Your task to perform on an android device: Open internet settings Image 0: 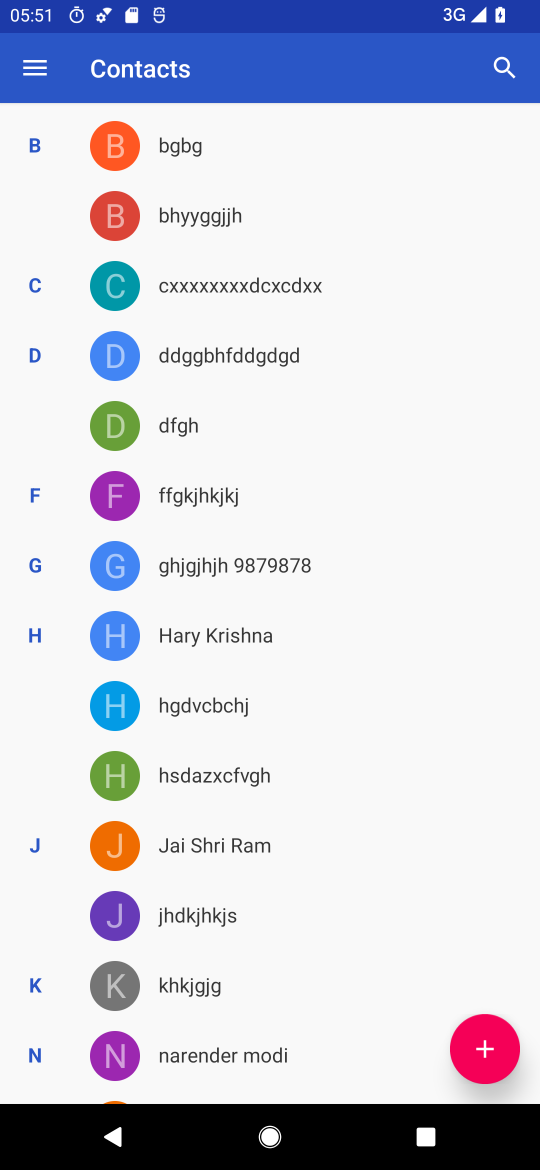
Step 0: press home button
Your task to perform on an android device: Open internet settings Image 1: 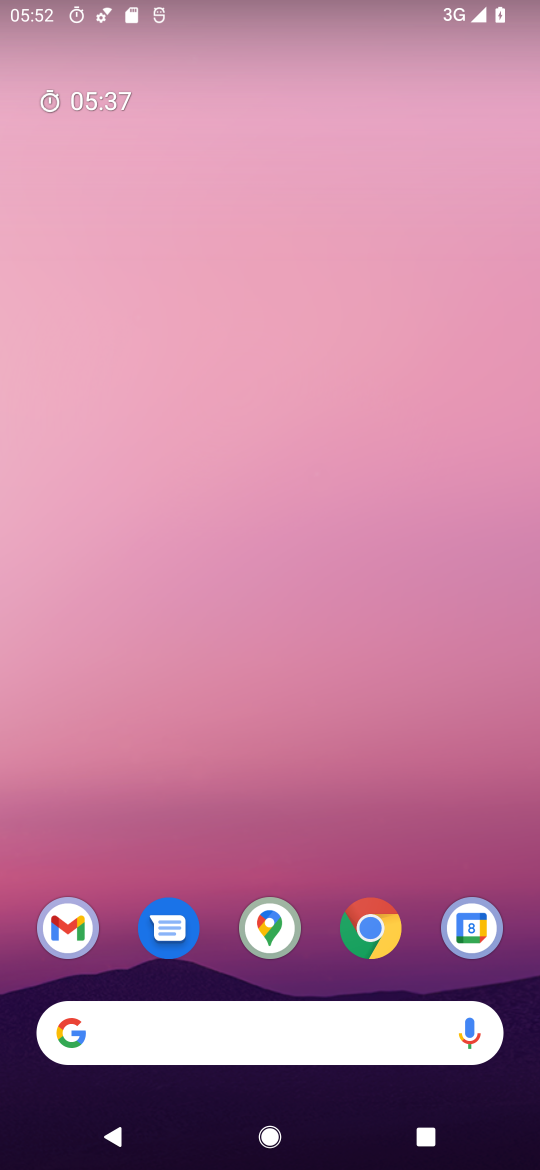
Step 1: drag from (237, 979) to (289, 408)
Your task to perform on an android device: Open internet settings Image 2: 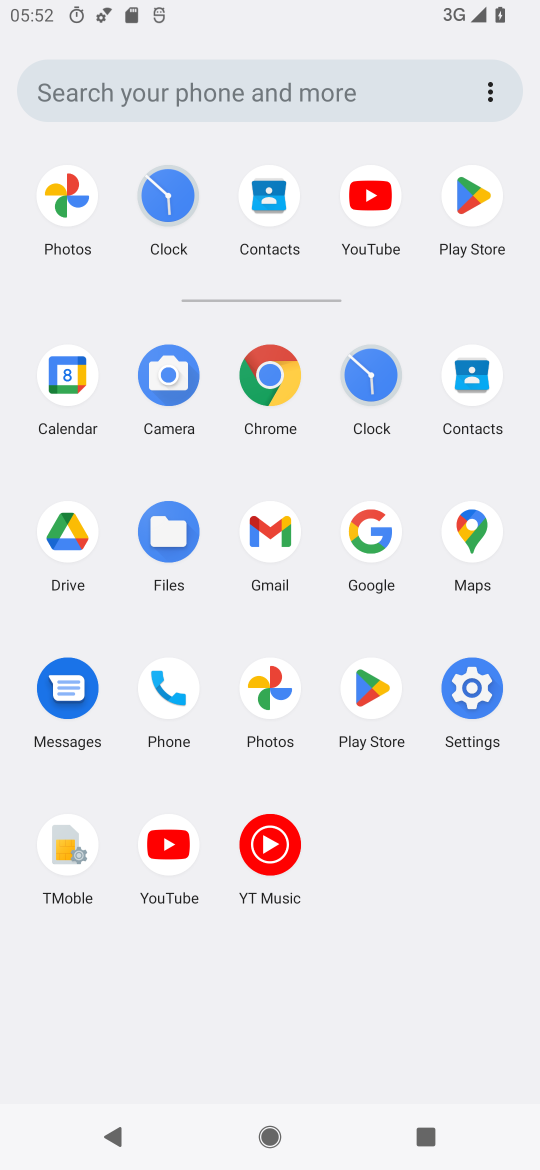
Step 2: click (472, 703)
Your task to perform on an android device: Open internet settings Image 3: 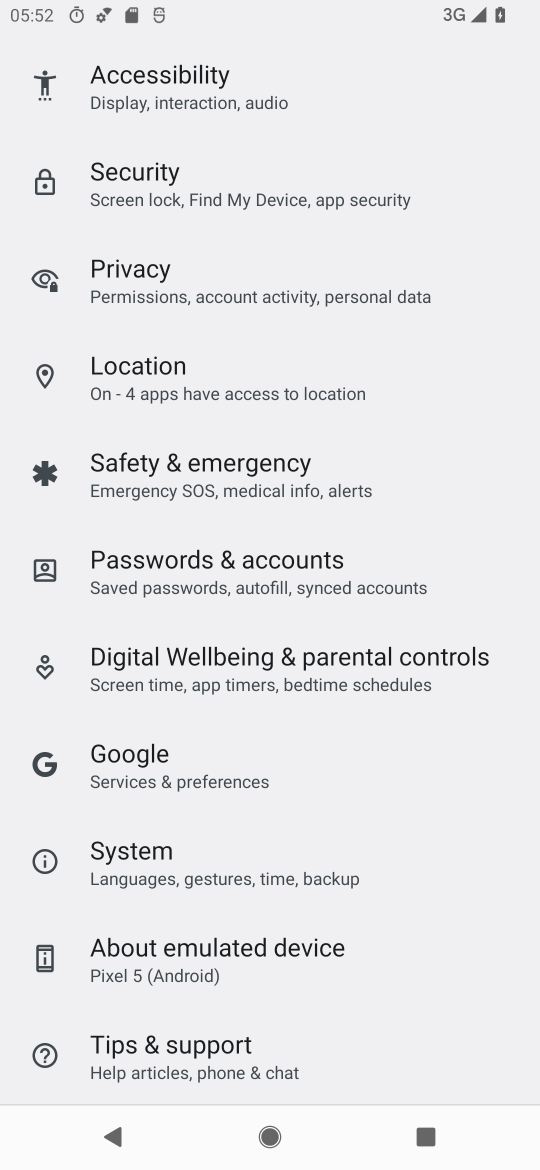
Step 3: drag from (247, 321) to (241, 1001)
Your task to perform on an android device: Open internet settings Image 4: 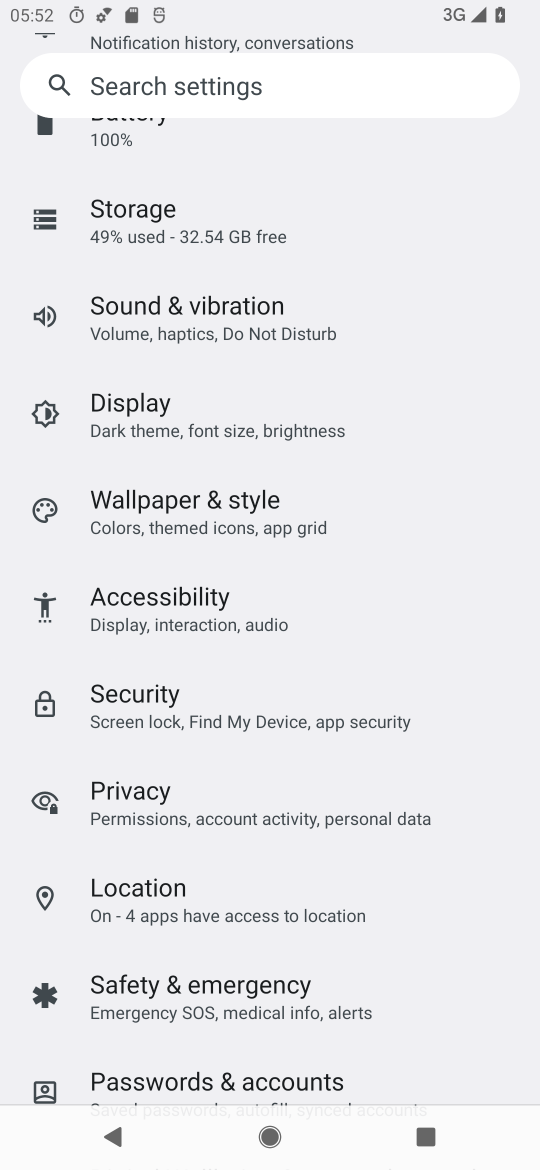
Step 4: drag from (244, 192) to (254, 811)
Your task to perform on an android device: Open internet settings Image 5: 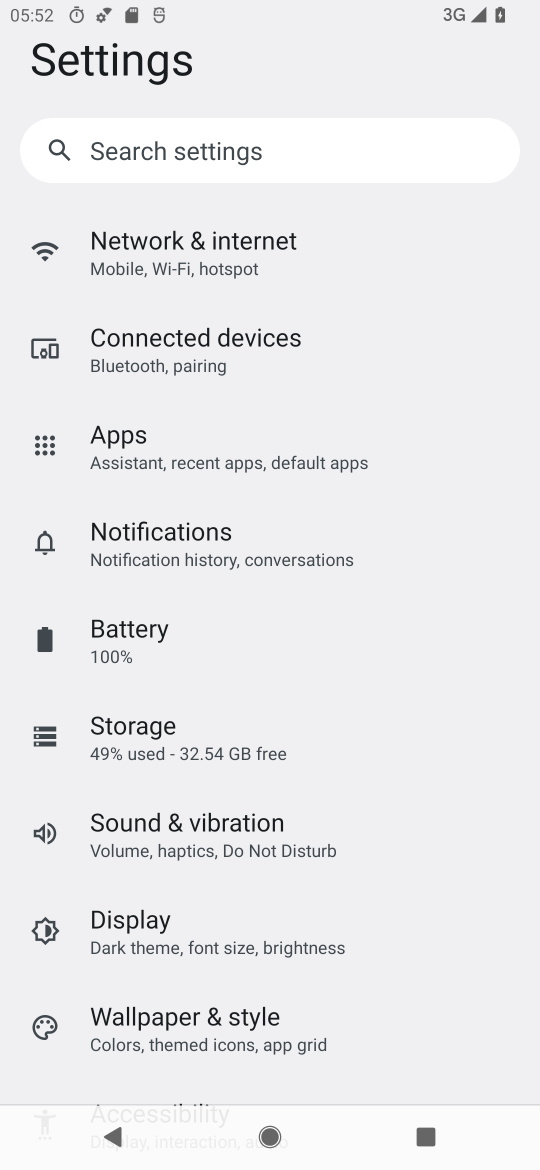
Step 5: click (128, 277)
Your task to perform on an android device: Open internet settings Image 6: 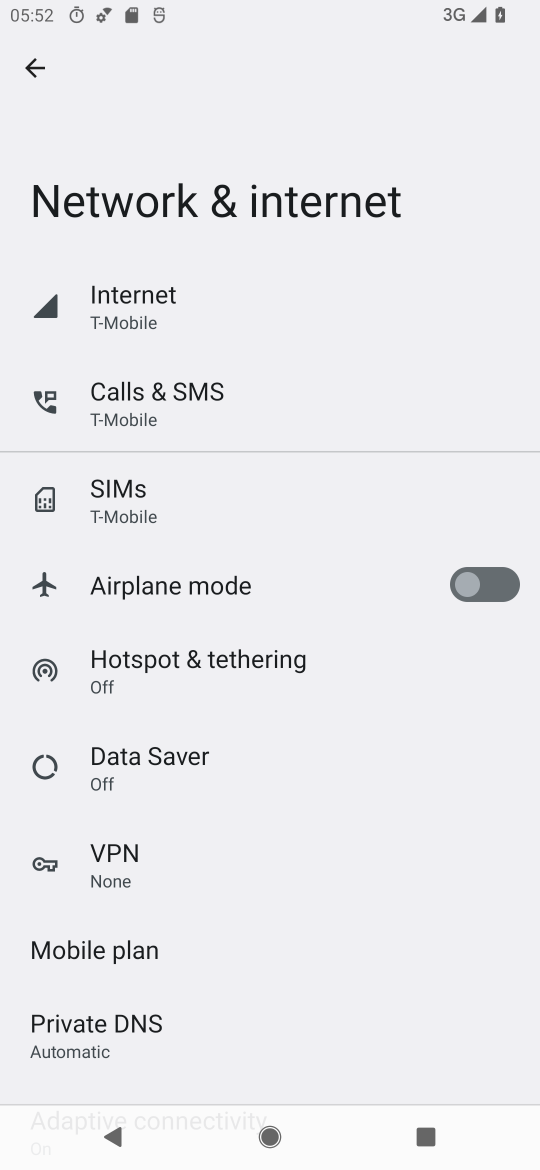
Step 6: click (142, 310)
Your task to perform on an android device: Open internet settings Image 7: 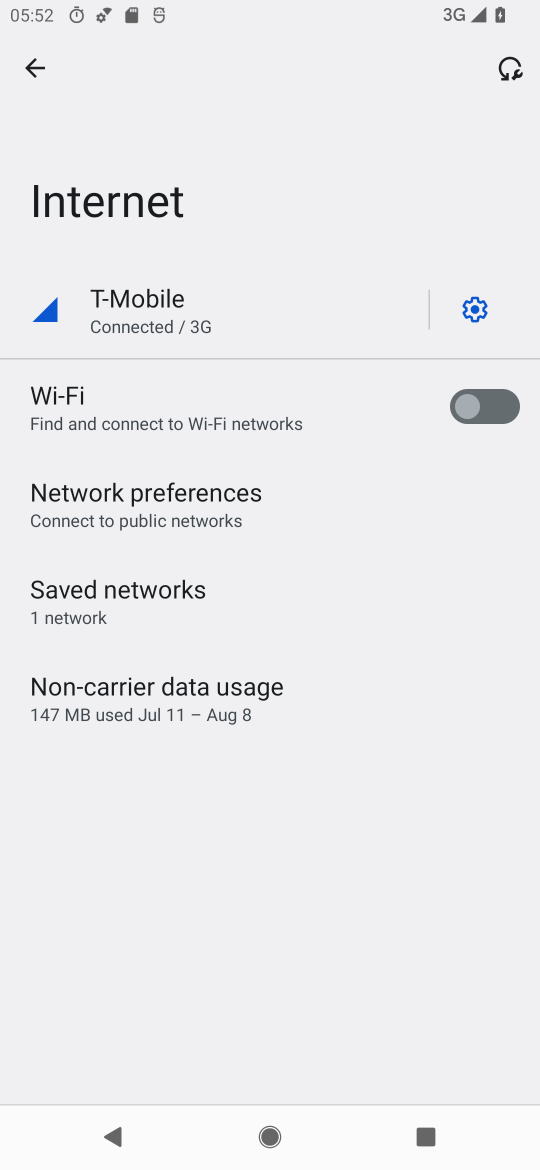
Step 7: click (468, 319)
Your task to perform on an android device: Open internet settings Image 8: 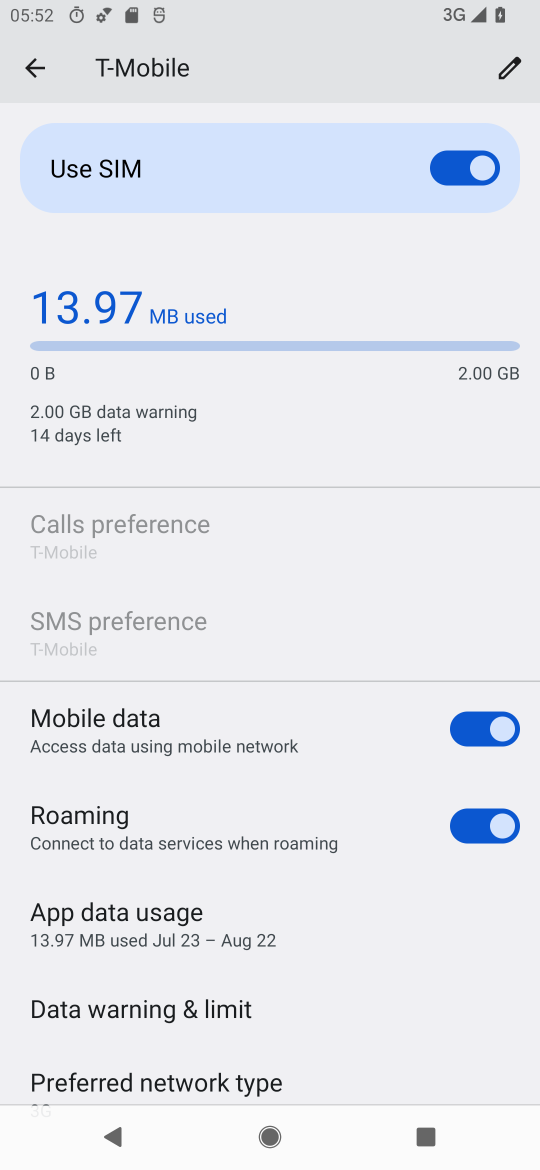
Step 8: task complete